Your task to perform on an android device: Go to Android settings Image 0: 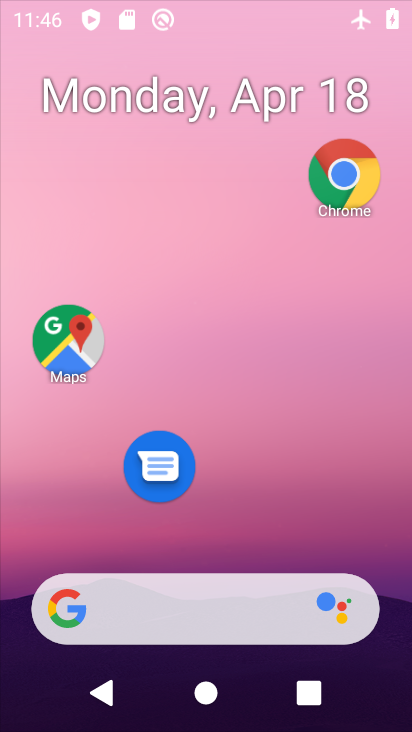
Step 0: drag from (255, 615) to (274, 141)
Your task to perform on an android device: Go to Android settings Image 1: 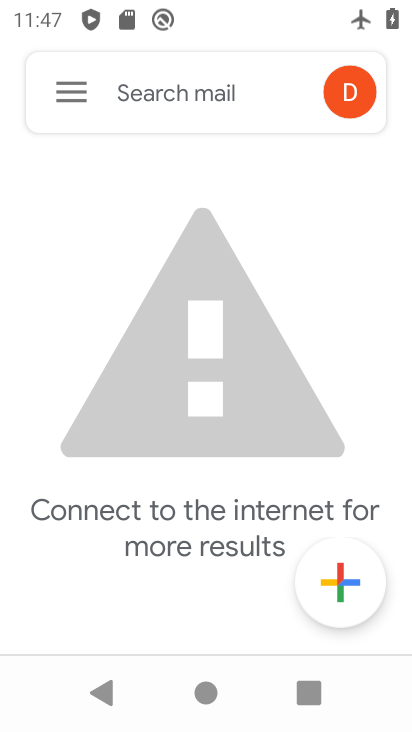
Step 1: press home button
Your task to perform on an android device: Go to Android settings Image 2: 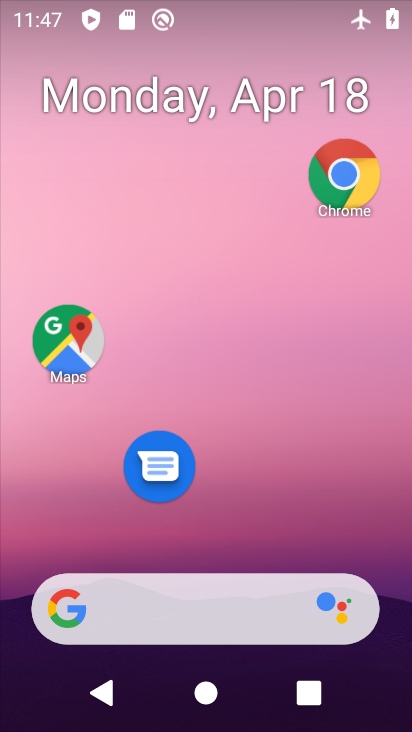
Step 2: drag from (347, 256) to (362, 165)
Your task to perform on an android device: Go to Android settings Image 3: 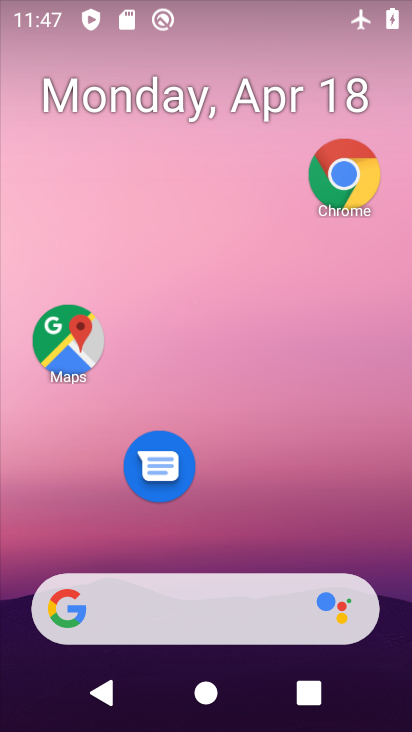
Step 3: drag from (276, 469) to (295, 25)
Your task to perform on an android device: Go to Android settings Image 4: 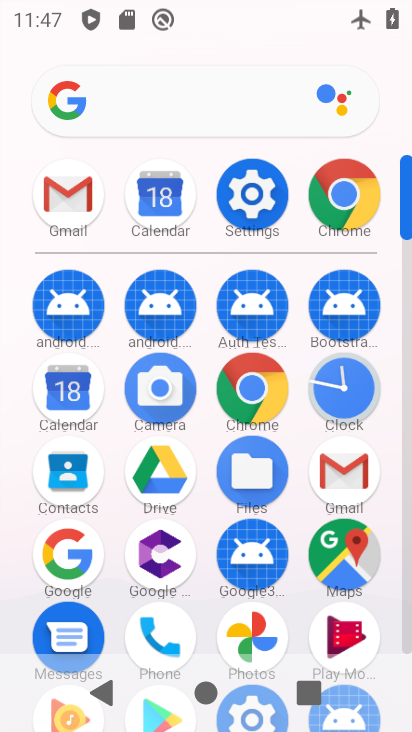
Step 4: click (257, 212)
Your task to perform on an android device: Go to Android settings Image 5: 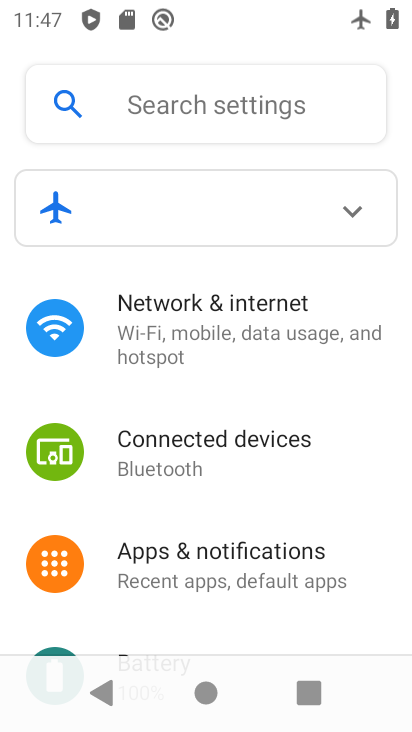
Step 5: drag from (289, 425) to (320, 7)
Your task to perform on an android device: Go to Android settings Image 6: 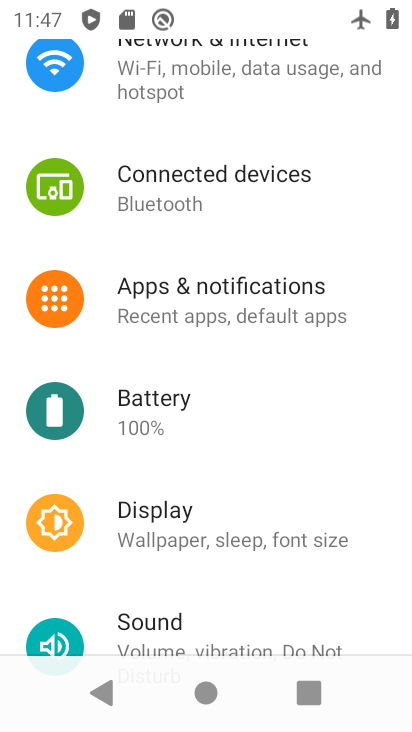
Step 6: drag from (252, 115) to (250, 10)
Your task to perform on an android device: Go to Android settings Image 7: 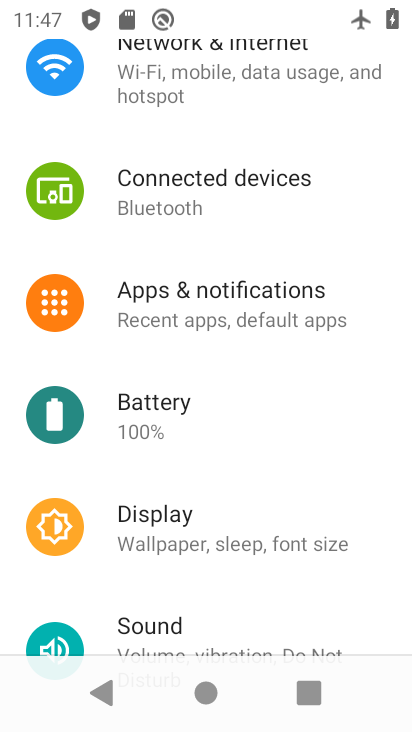
Step 7: drag from (259, 413) to (294, 3)
Your task to perform on an android device: Go to Android settings Image 8: 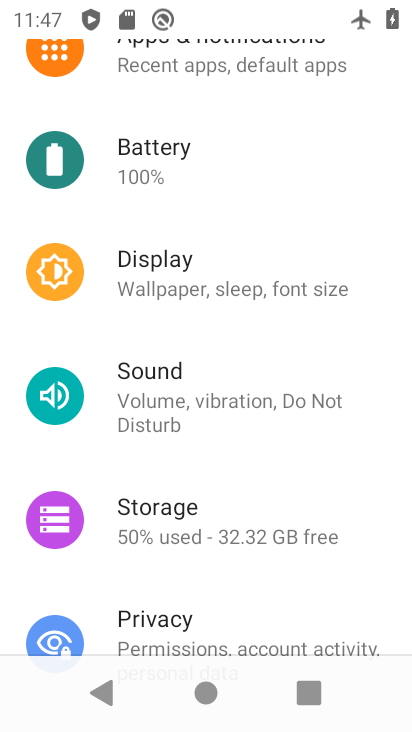
Step 8: drag from (244, 556) to (319, 97)
Your task to perform on an android device: Go to Android settings Image 9: 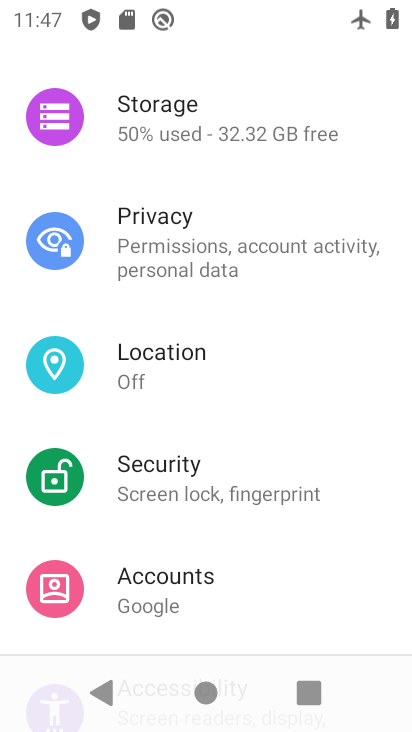
Step 9: drag from (229, 499) to (284, 116)
Your task to perform on an android device: Go to Android settings Image 10: 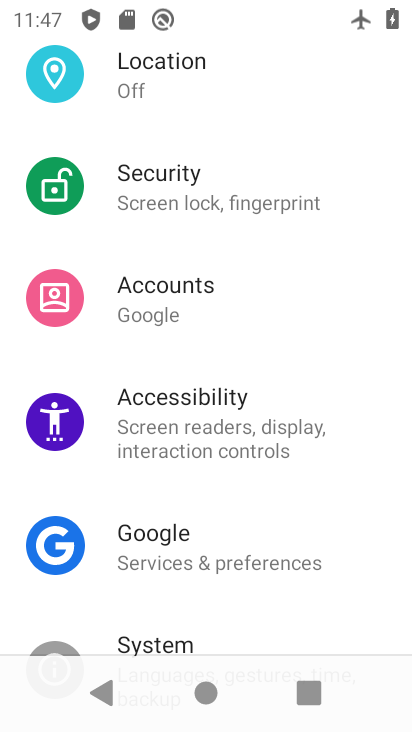
Step 10: drag from (265, 520) to (328, 239)
Your task to perform on an android device: Go to Android settings Image 11: 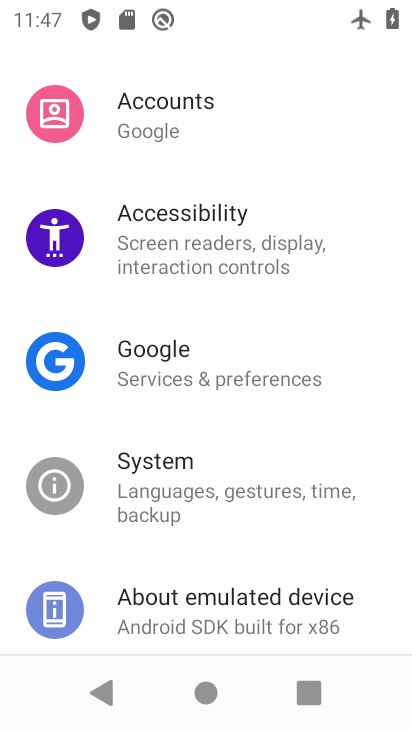
Step 11: click (250, 612)
Your task to perform on an android device: Go to Android settings Image 12: 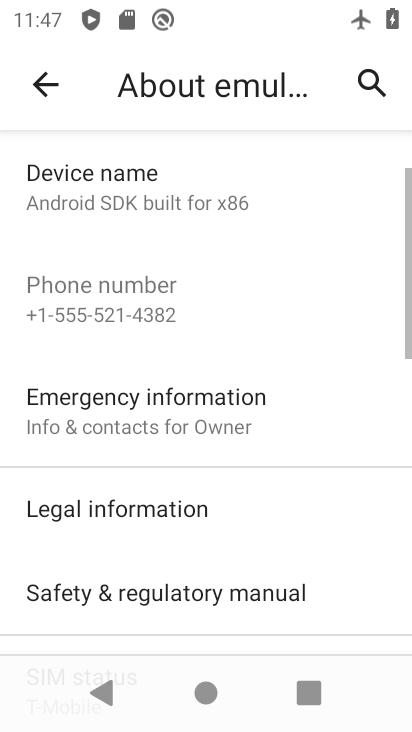
Step 12: drag from (363, 166) to (375, 88)
Your task to perform on an android device: Go to Android settings Image 13: 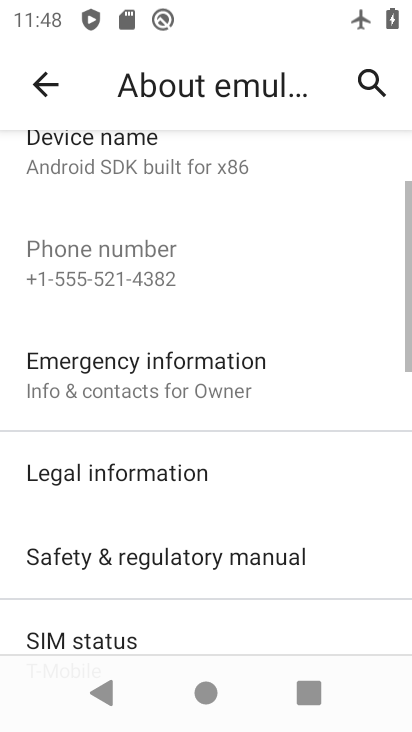
Step 13: drag from (232, 515) to (242, 231)
Your task to perform on an android device: Go to Android settings Image 14: 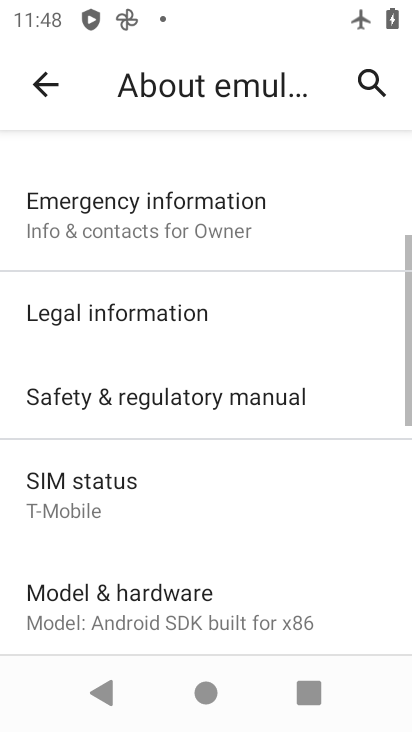
Step 14: drag from (238, 280) to (251, 59)
Your task to perform on an android device: Go to Android settings Image 15: 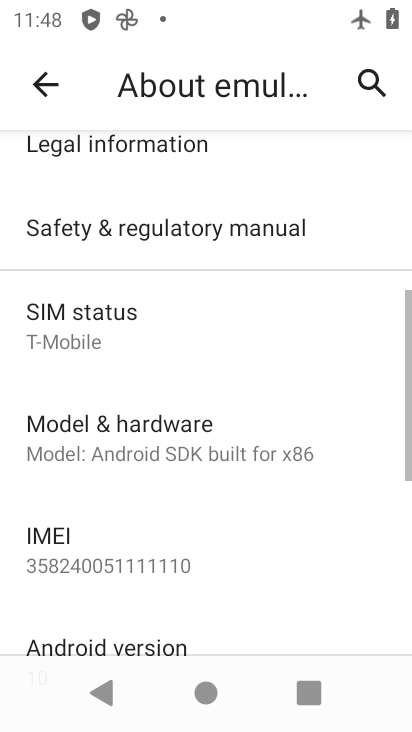
Step 15: drag from (157, 392) to (176, 132)
Your task to perform on an android device: Go to Android settings Image 16: 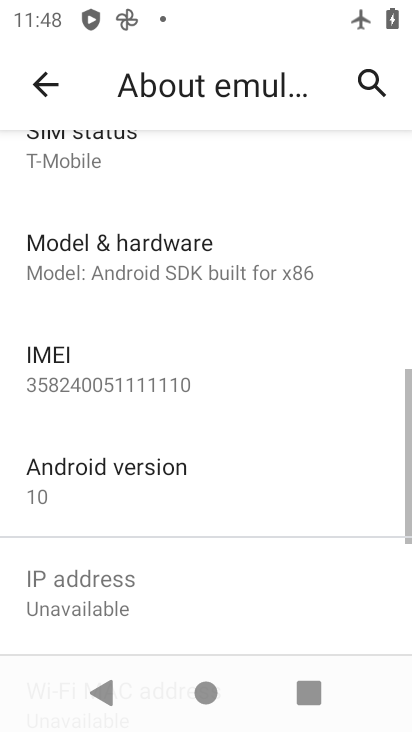
Step 16: click (189, 477)
Your task to perform on an android device: Go to Android settings Image 17: 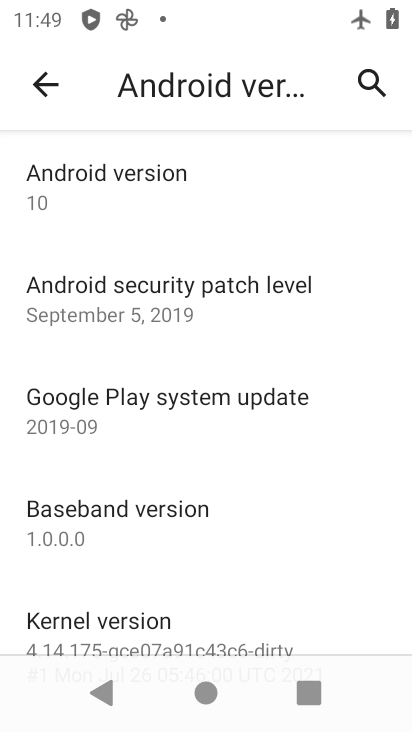
Step 17: click (189, 477)
Your task to perform on an android device: Go to Android settings Image 18: 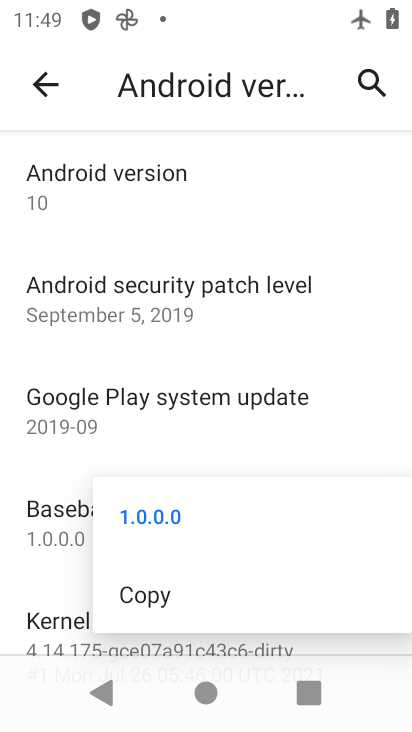
Step 18: task complete